Your task to perform on an android device: What's on my calendar today? Image 0: 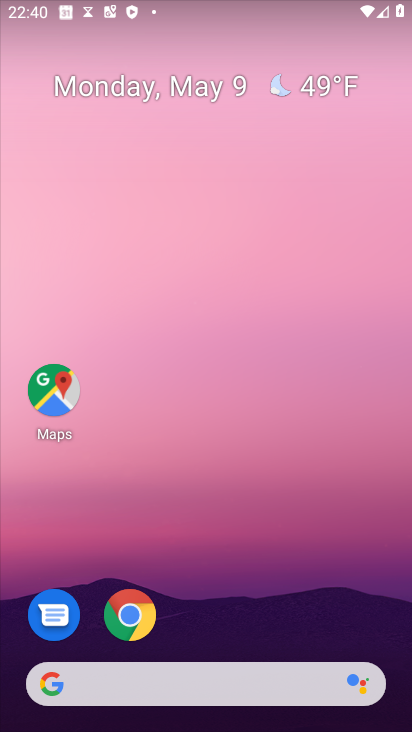
Step 0: drag from (292, 542) to (351, 197)
Your task to perform on an android device: What's on my calendar today? Image 1: 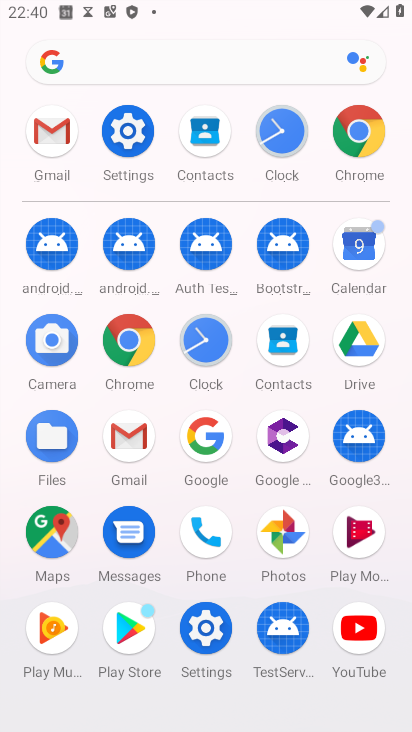
Step 1: click (353, 261)
Your task to perform on an android device: What's on my calendar today? Image 2: 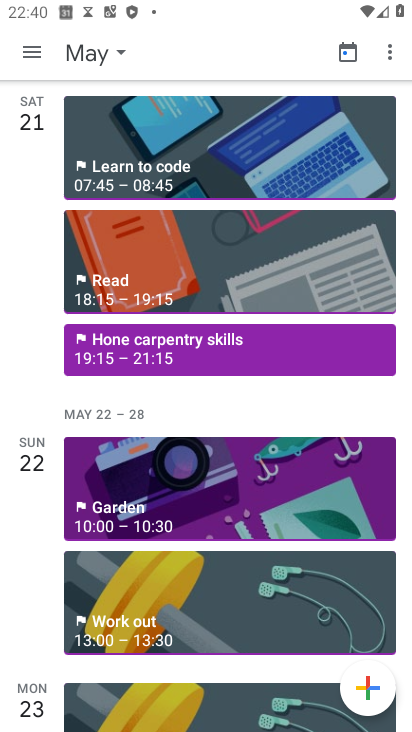
Step 2: click (106, 56)
Your task to perform on an android device: What's on my calendar today? Image 3: 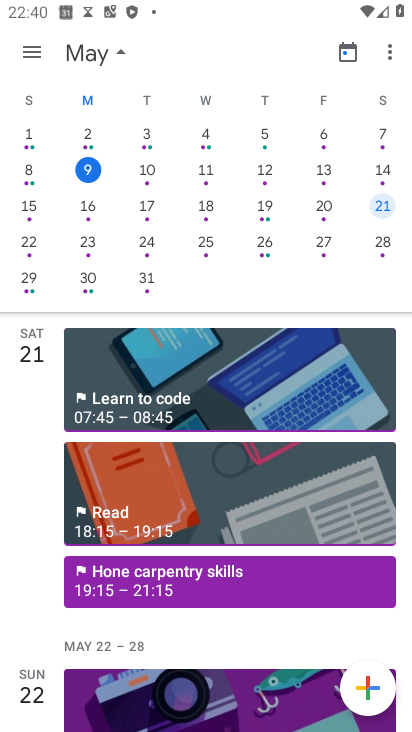
Step 3: click (87, 181)
Your task to perform on an android device: What's on my calendar today? Image 4: 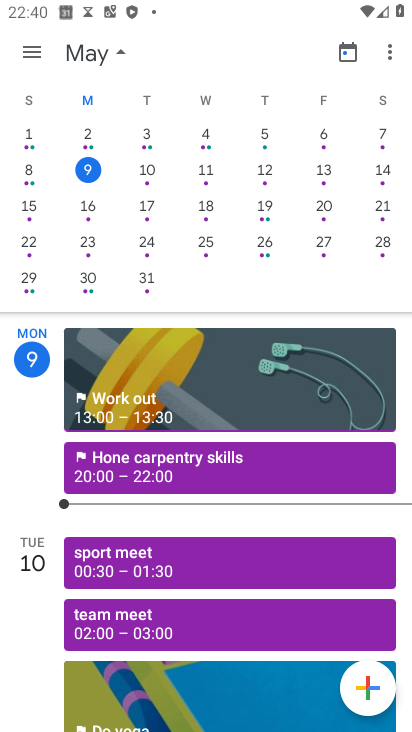
Step 4: task complete